Your task to perform on an android device: clear all cookies in the chrome app Image 0: 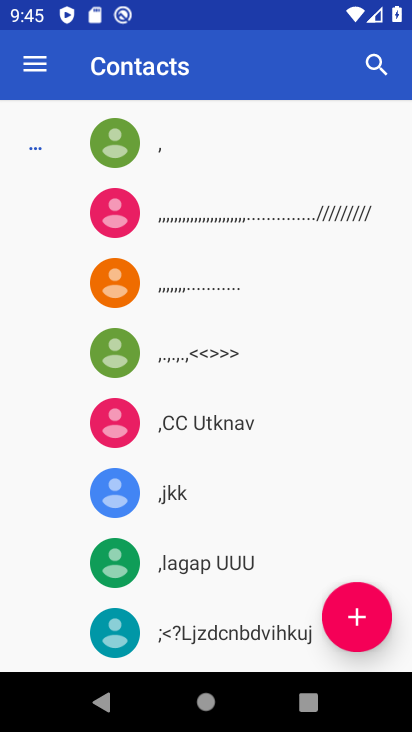
Step 0: press back button
Your task to perform on an android device: clear all cookies in the chrome app Image 1: 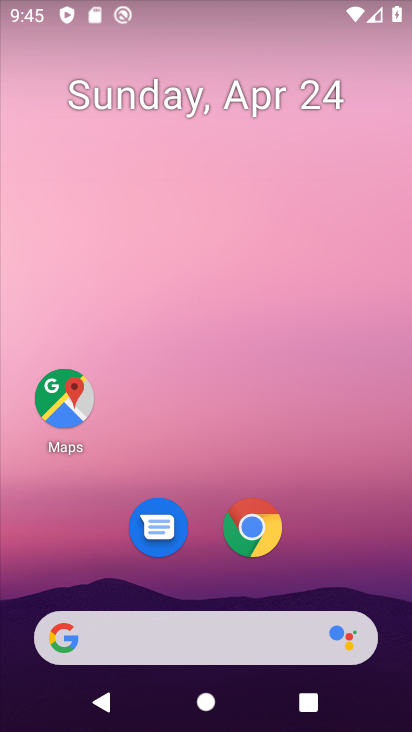
Step 1: click (244, 531)
Your task to perform on an android device: clear all cookies in the chrome app Image 2: 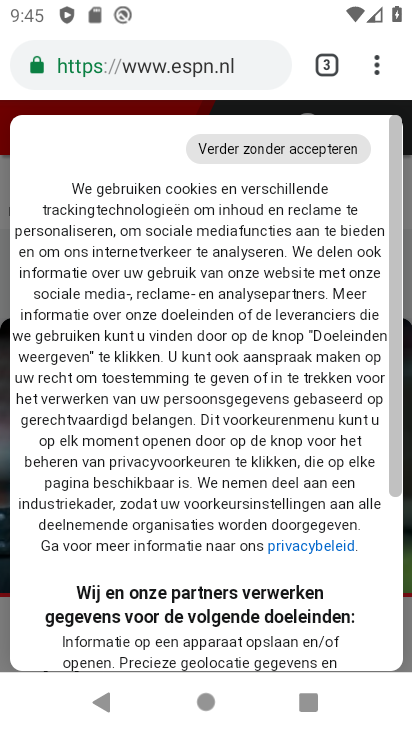
Step 2: drag from (372, 64) to (164, 567)
Your task to perform on an android device: clear all cookies in the chrome app Image 3: 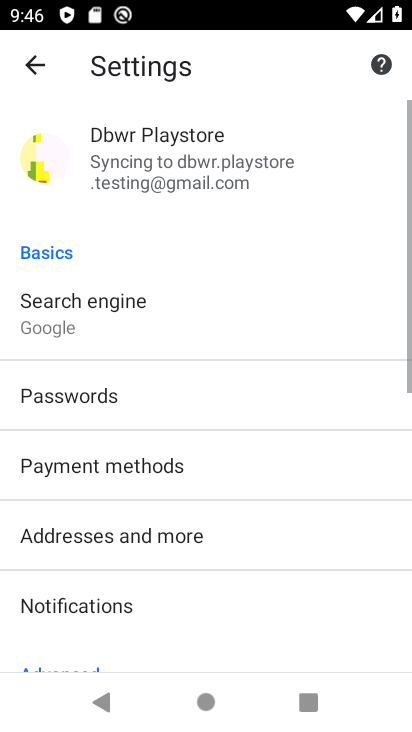
Step 3: click (24, 55)
Your task to perform on an android device: clear all cookies in the chrome app Image 4: 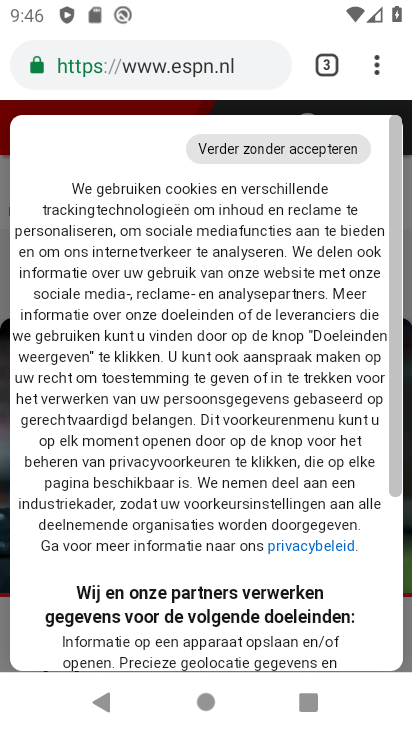
Step 4: drag from (371, 58) to (157, 464)
Your task to perform on an android device: clear all cookies in the chrome app Image 5: 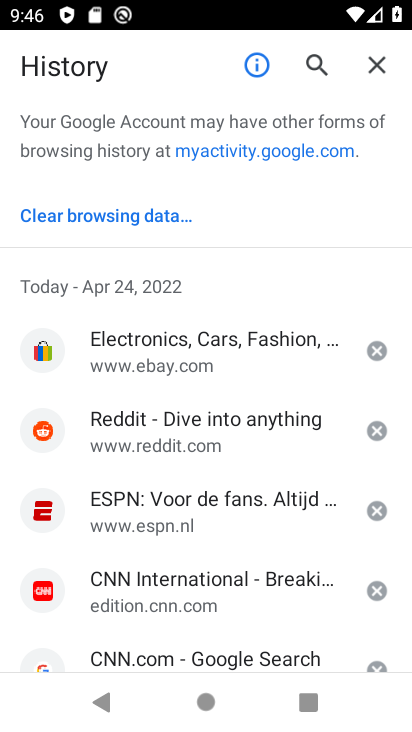
Step 5: click (136, 224)
Your task to perform on an android device: clear all cookies in the chrome app Image 6: 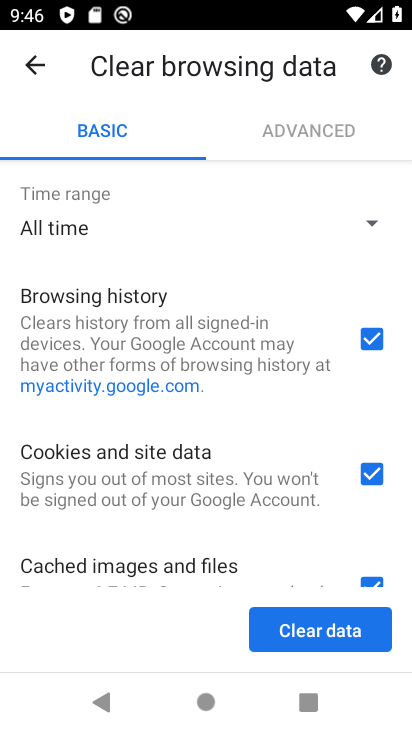
Step 6: click (371, 579)
Your task to perform on an android device: clear all cookies in the chrome app Image 7: 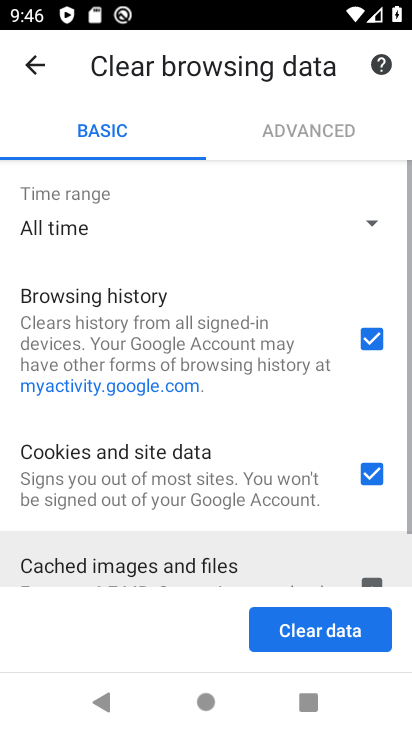
Step 7: click (361, 348)
Your task to perform on an android device: clear all cookies in the chrome app Image 8: 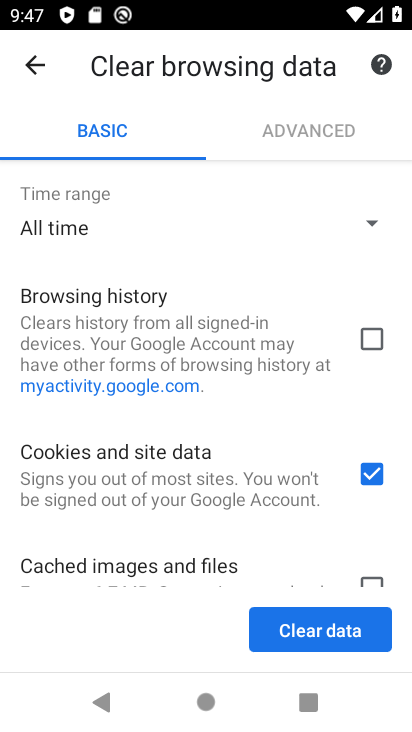
Step 8: click (322, 625)
Your task to perform on an android device: clear all cookies in the chrome app Image 9: 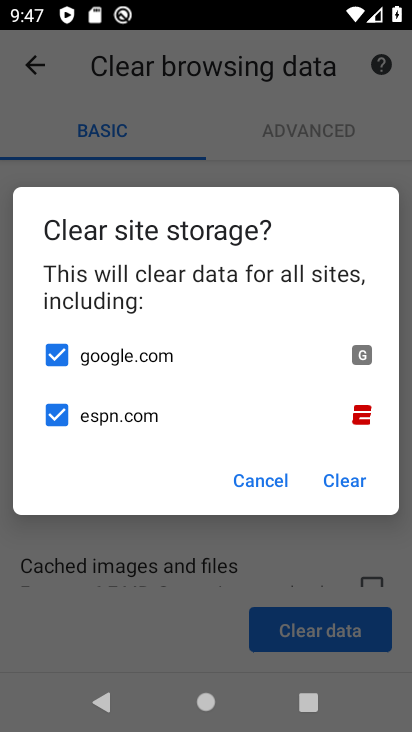
Step 9: click (343, 491)
Your task to perform on an android device: clear all cookies in the chrome app Image 10: 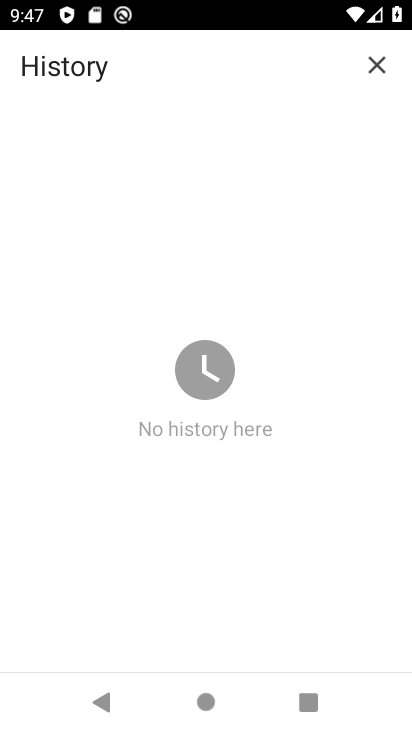
Step 10: task complete